Your task to perform on an android device: turn on wifi Image 0: 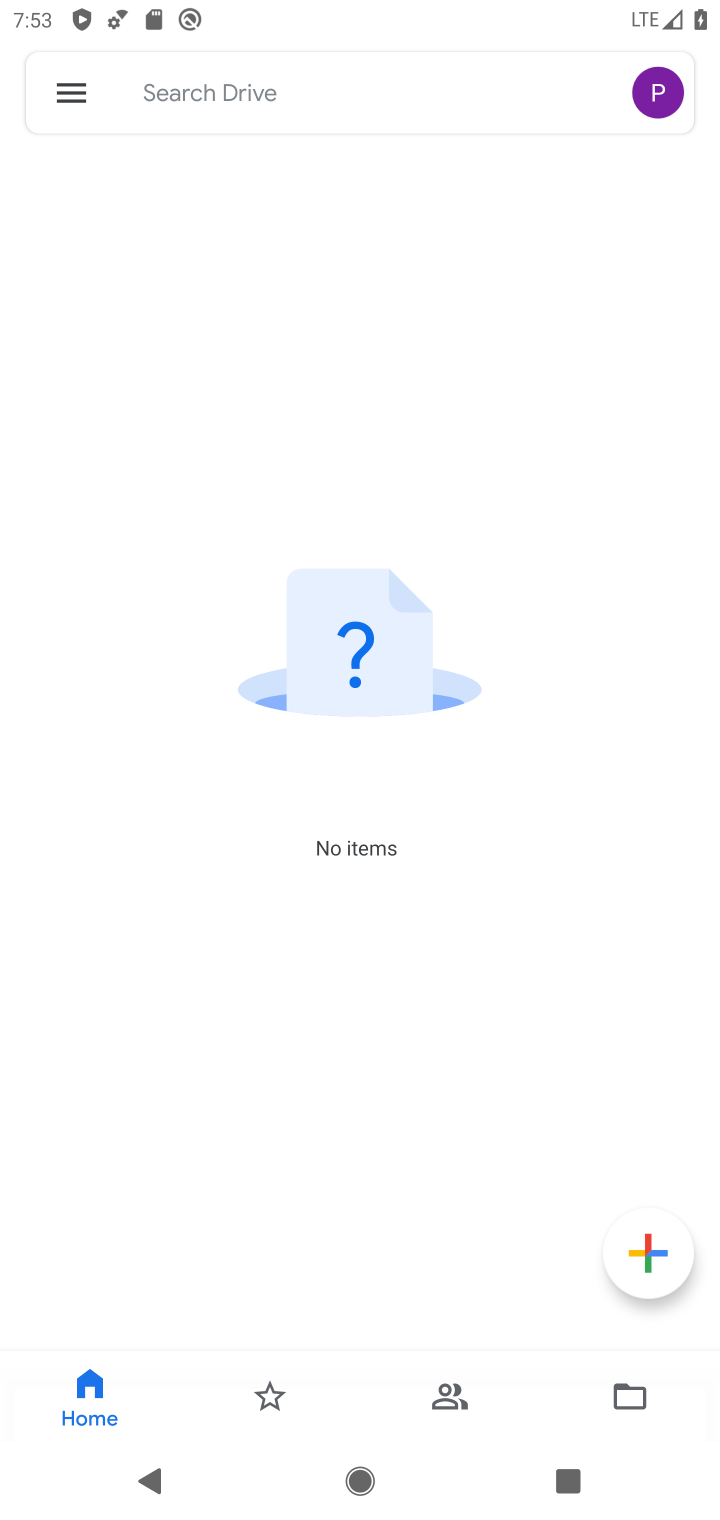
Step 0: press home button
Your task to perform on an android device: turn on wifi Image 1: 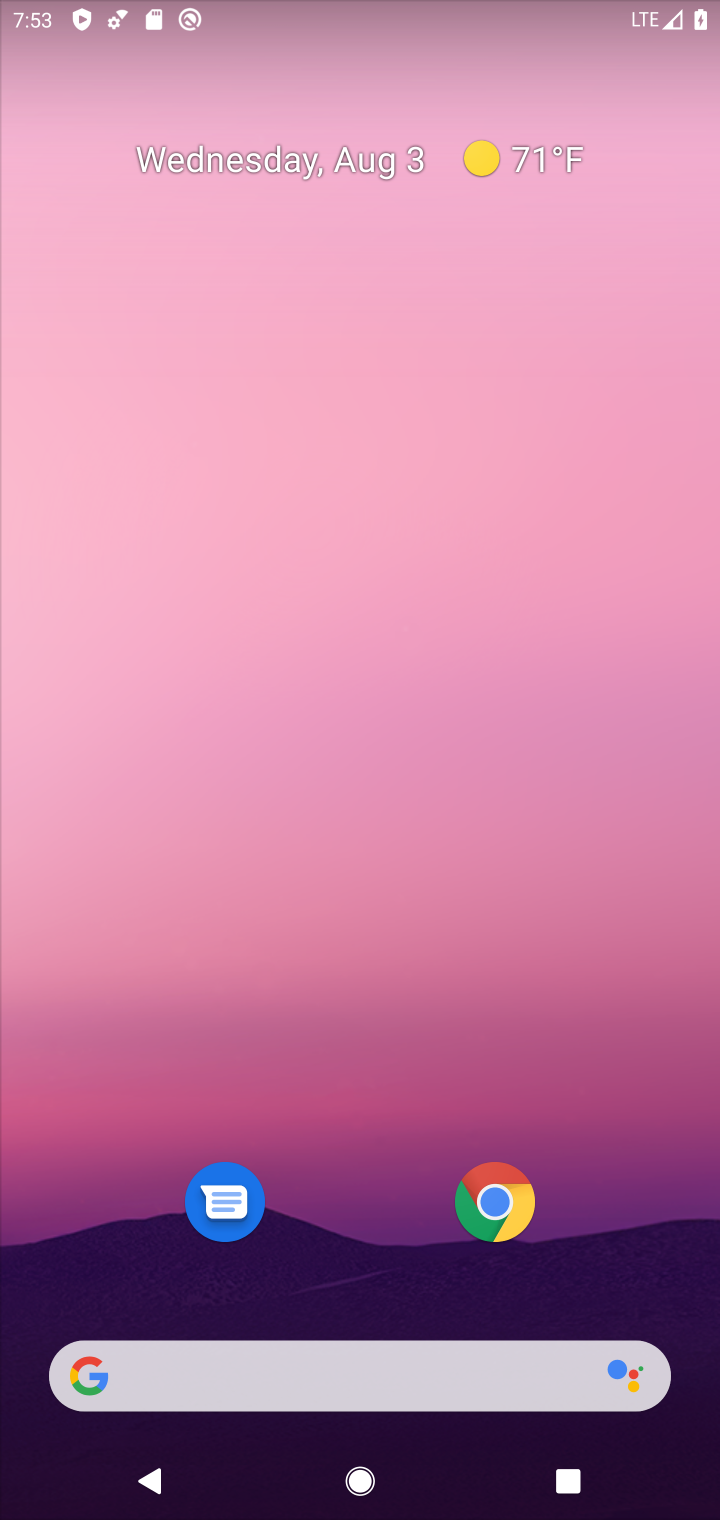
Step 1: drag from (253, 1379) to (460, 217)
Your task to perform on an android device: turn on wifi Image 2: 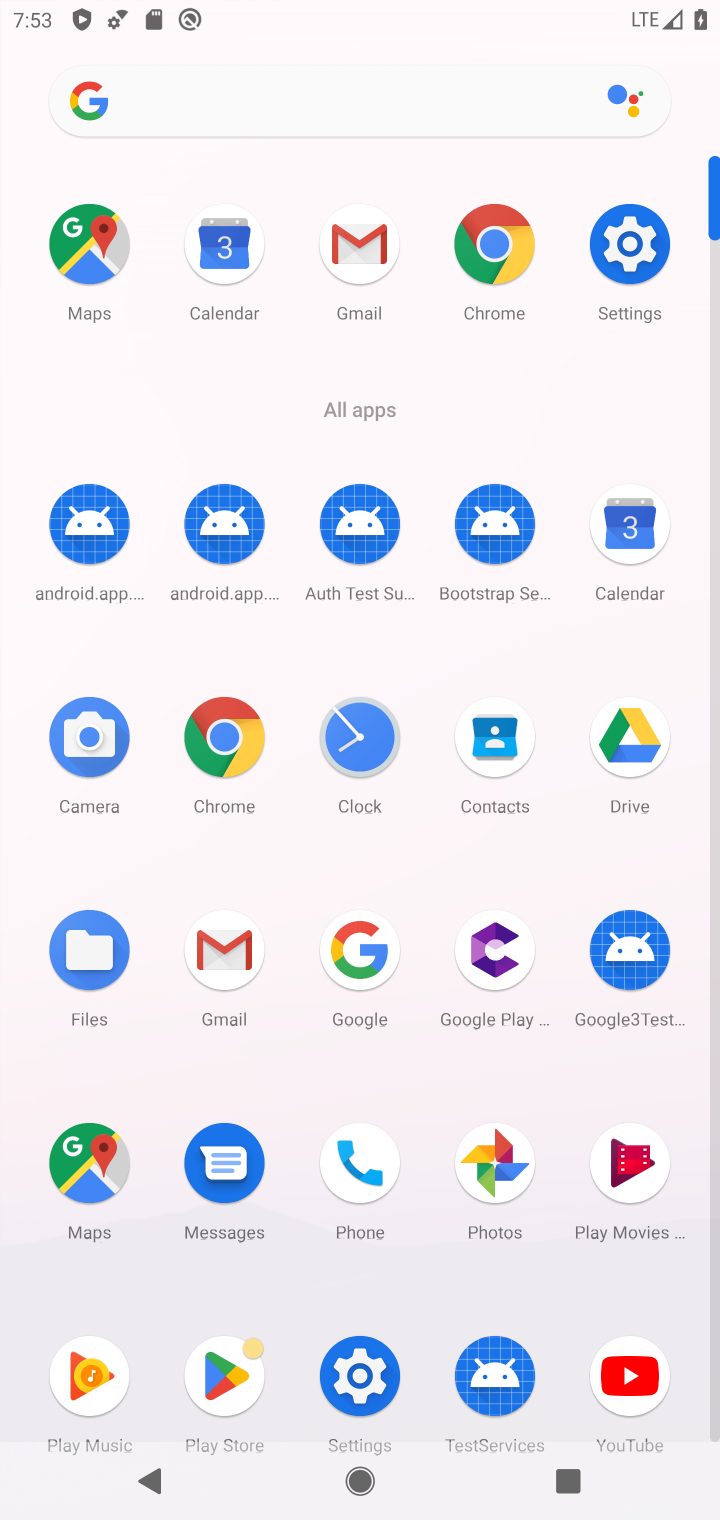
Step 2: click (626, 244)
Your task to perform on an android device: turn on wifi Image 3: 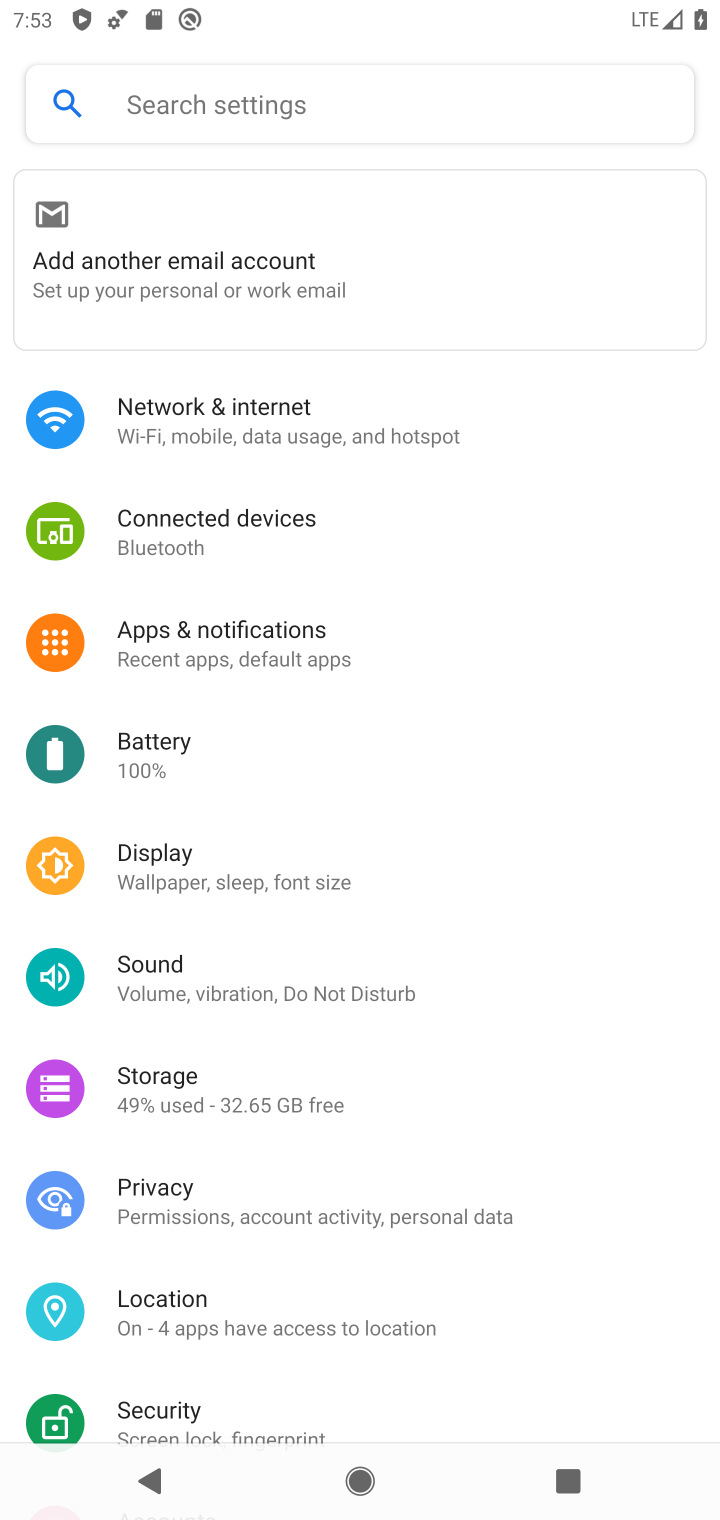
Step 3: click (213, 429)
Your task to perform on an android device: turn on wifi Image 4: 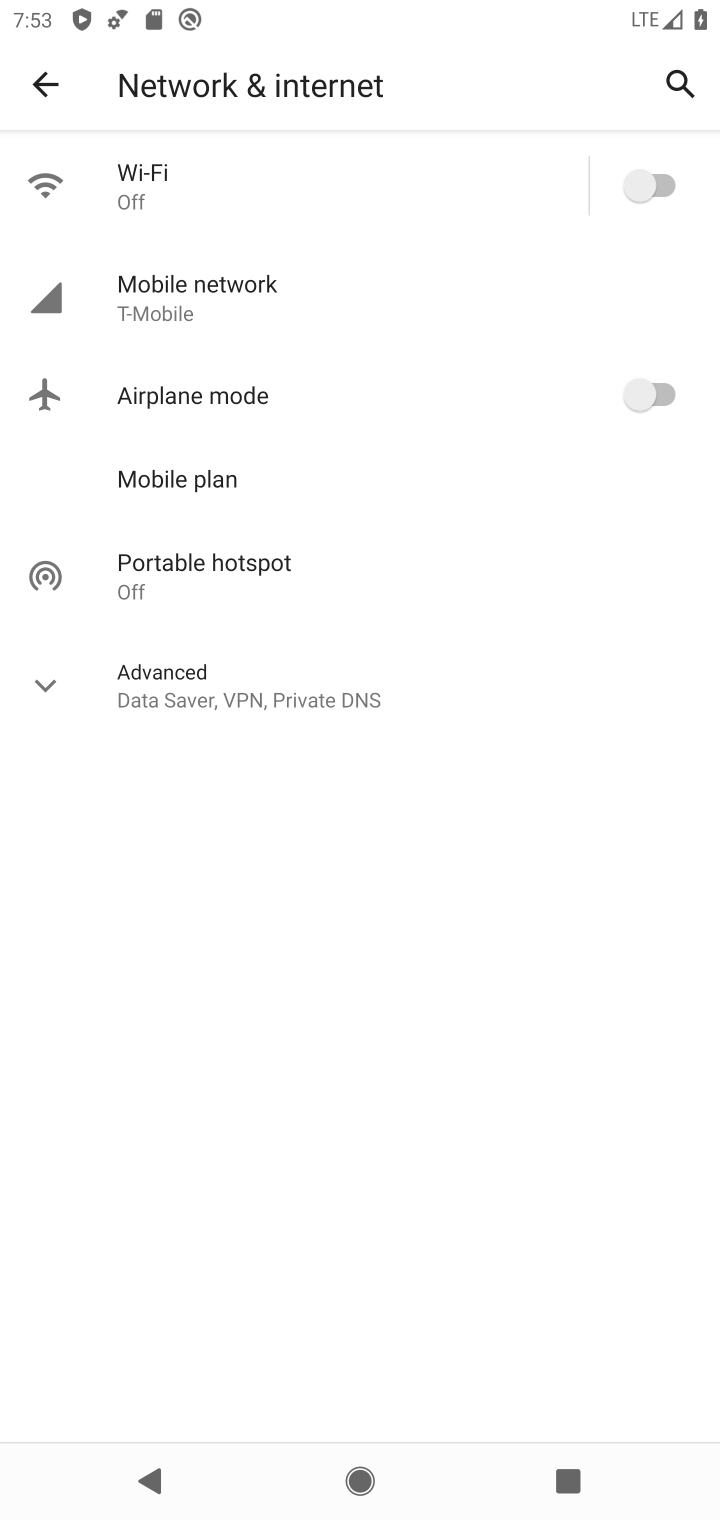
Step 4: click (651, 186)
Your task to perform on an android device: turn on wifi Image 5: 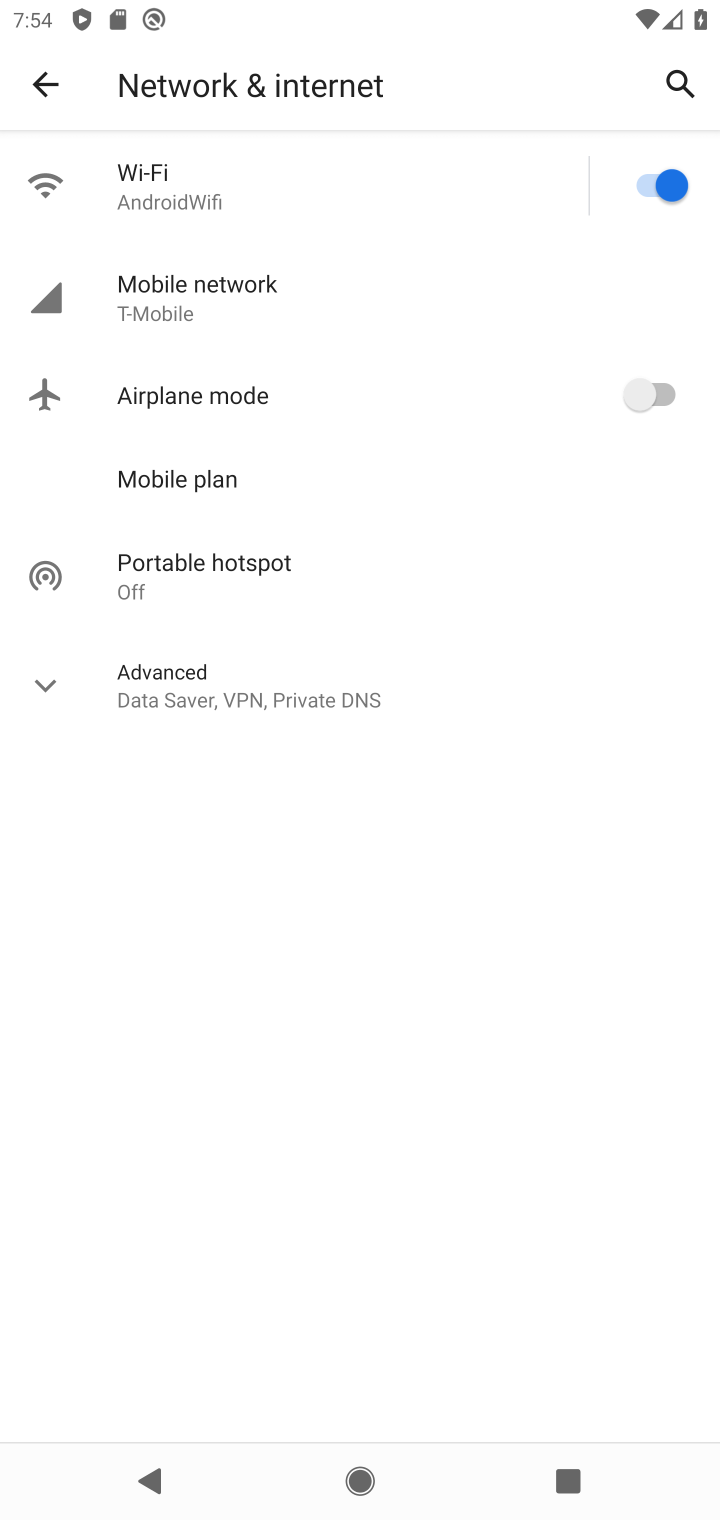
Step 5: task complete